Your task to perform on an android device: all mails in gmail Image 0: 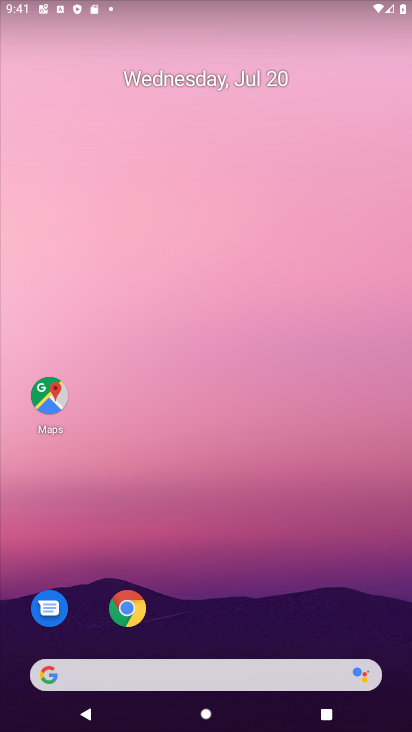
Step 0: drag from (260, 550) to (172, 147)
Your task to perform on an android device: all mails in gmail Image 1: 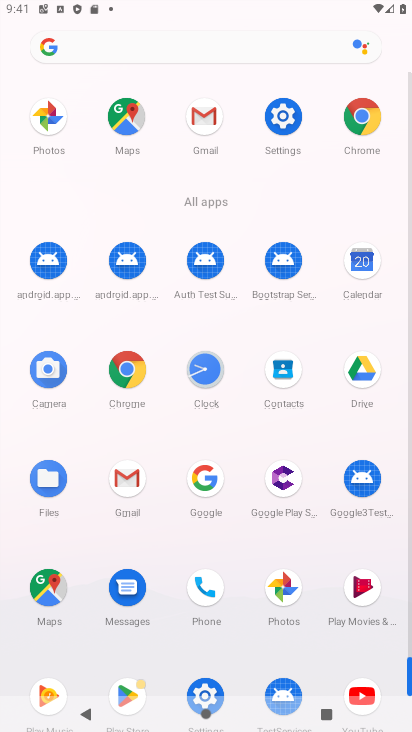
Step 1: click (126, 500)
Your task to perform on an android device: all mails in gmail Image 2: 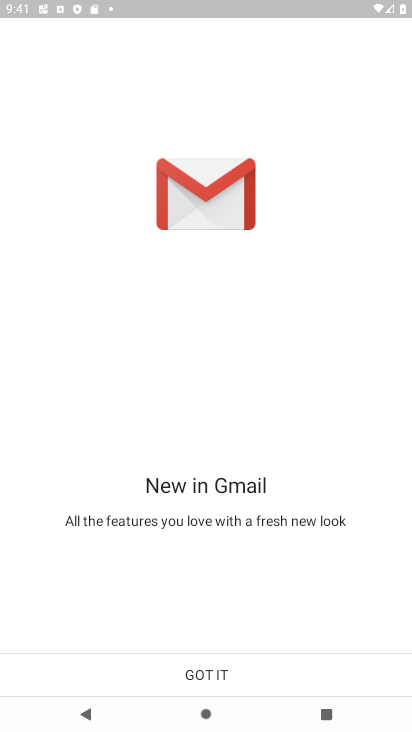
Step 2: click (222, 665)
Your task to perform on an android device: all mails in gmail Image 3: 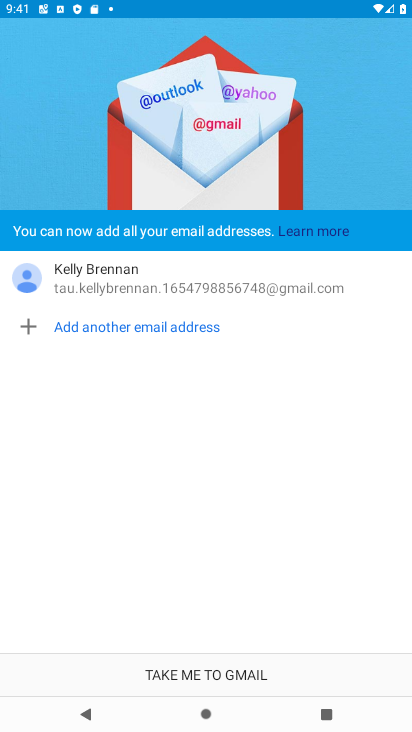
Step 3: click (225, 667)
Your task to perform on an android device: all mails in gmail Image 4: 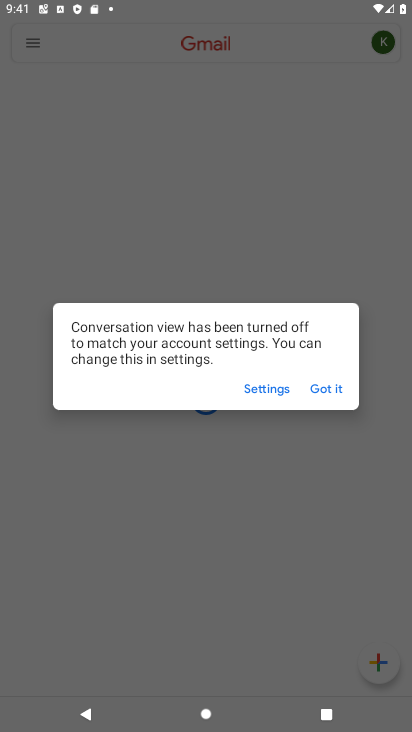
Step 4: click (311, 392)
Your task to perform on an android device: all mails in gmail Image 5: 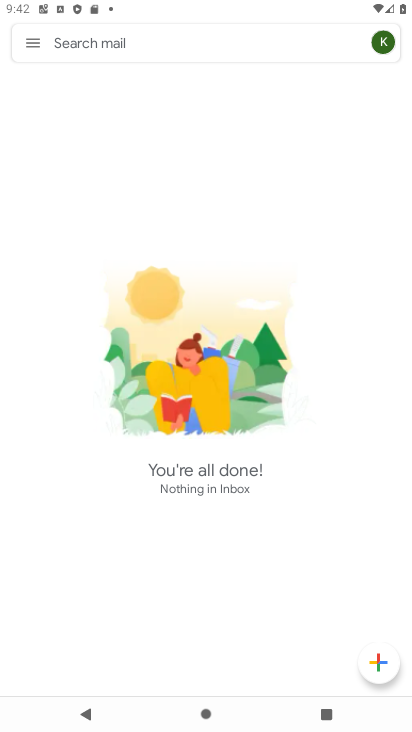
Step 5: click (26, 55)
Your task to perform on an android device: all mails in gmail Image 6: 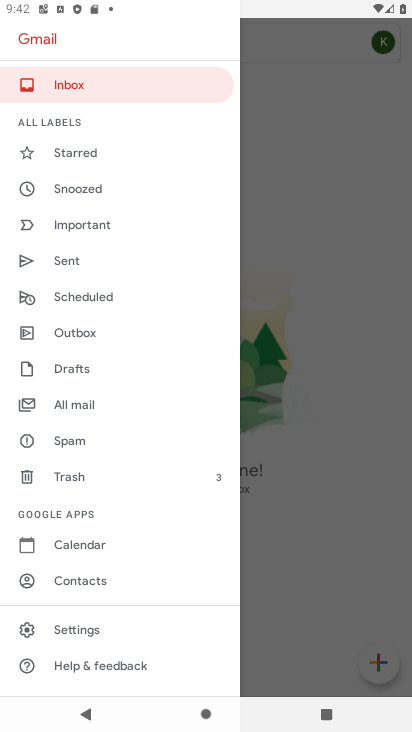
Step 6: click (99, 401)
Your task to perform on an android device: all mails in gmail Image 7: 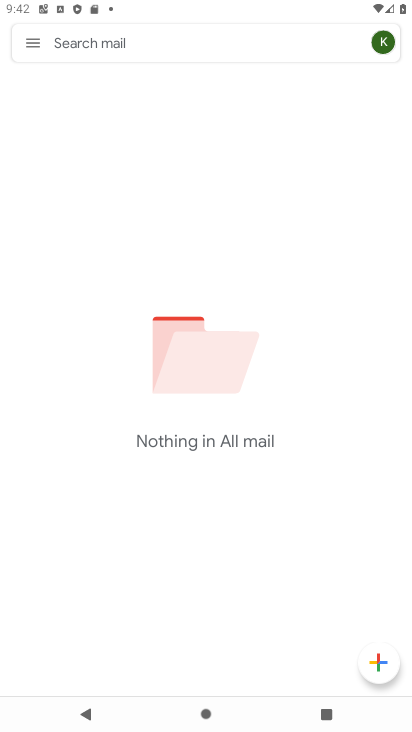
Step 7: task complete